Your task to perform on an android device: delete the emails in spam in the gmail app Image 0: 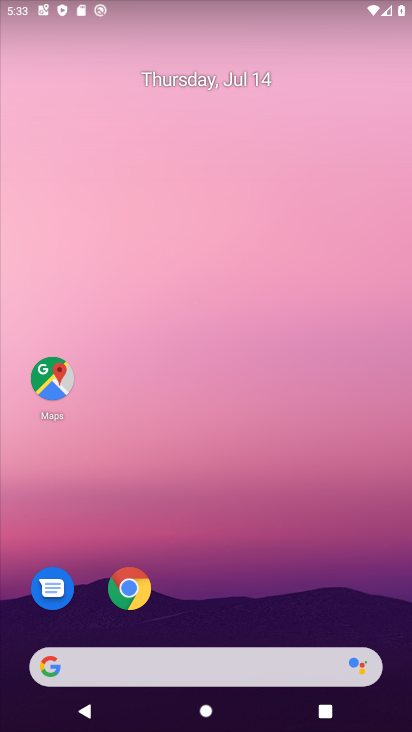
Step 0: drag from (148, 413) to (152, 203)
Your task to perform on an android device: delete the emails in spam in the gmail app Image 1: 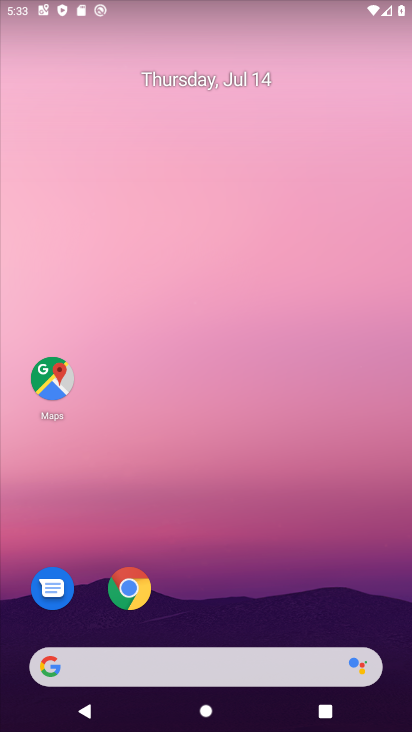
Step 1: drag from (255, 598) to (232, 198)
Your task to perform on an android device: delete the emails in spam in the gmail app Image 2: 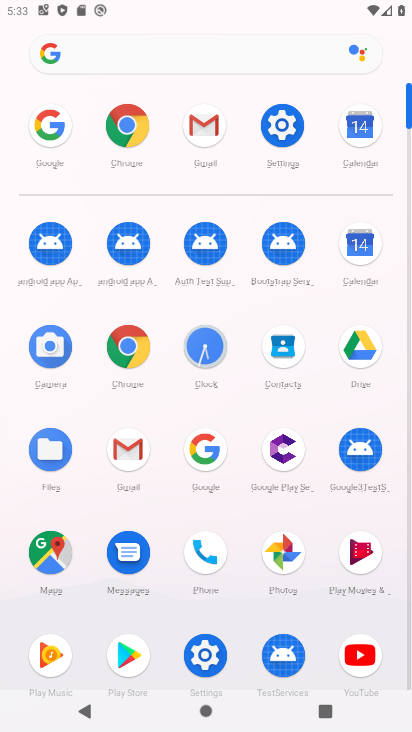
Step 2: click (113, 450)
Your task to perform on an android device: delete the emails in spam in the gmail app Image 3: 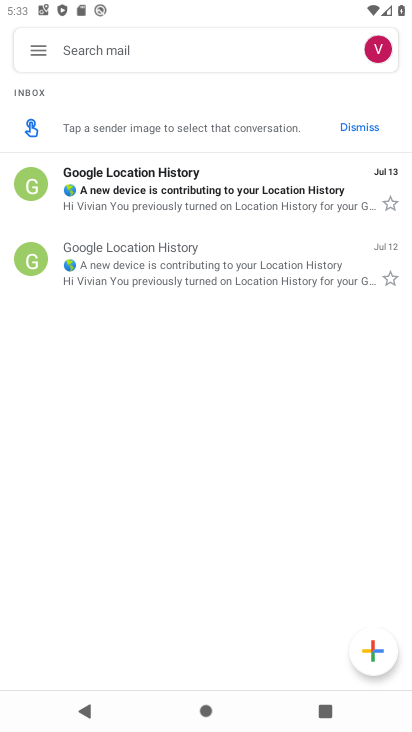
Step 3: click (32, 50)
Your task to perform on an android device: delete the emails in spam in the gmail app Image 4: 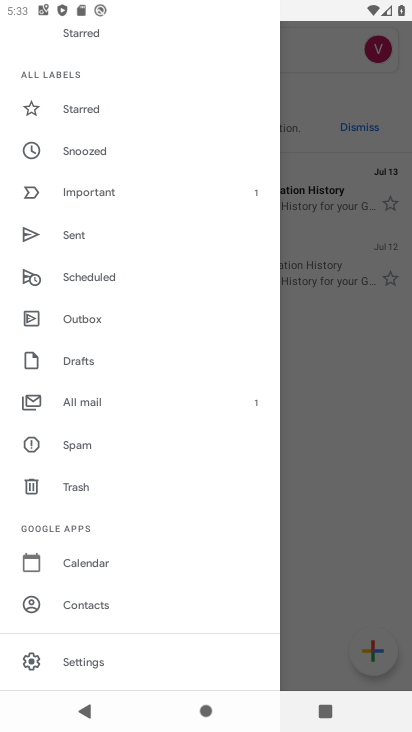
Step 4: click (77, 452)
Your task to perform on an android device: delete the emails in spam in the gmail app Image 5: 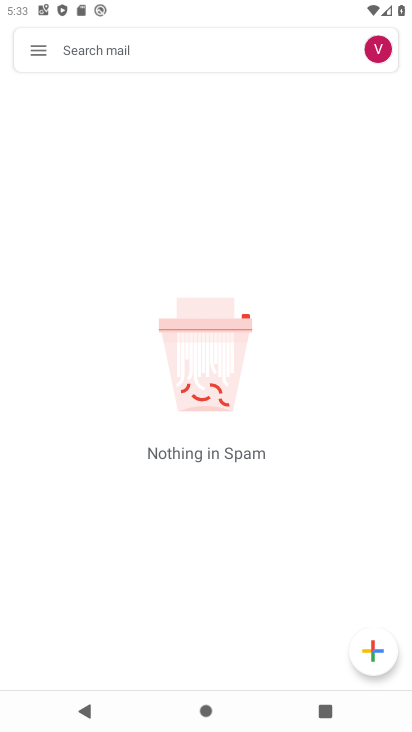
Step 5: task complete